Your task to perform on an android device: Go to Wikipedia Image 0: 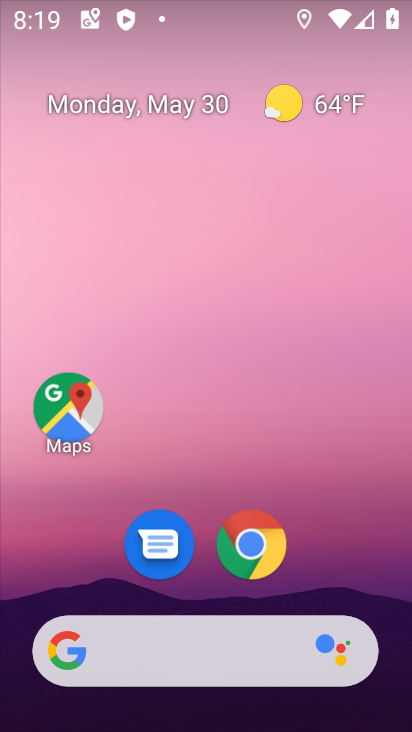
Step 0: click (277, 558)
Your task to perform on an android device: Go to Wikipedia Image 1: 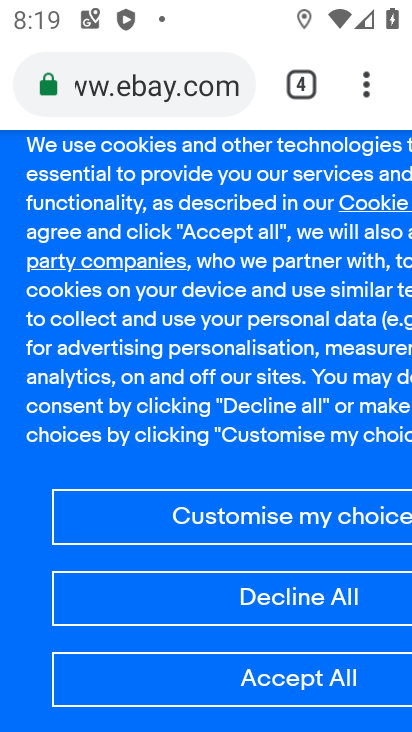
Step 1: click (295, 59)
Your task to perform on an android device: Go to Wikipedia Image 2: 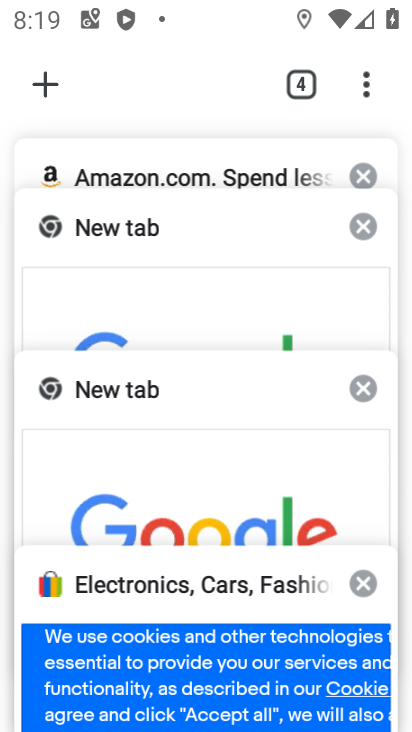
Step 2: click (56, 85)
Your task to perform on an android device: Go to Wikipedia Image 3: 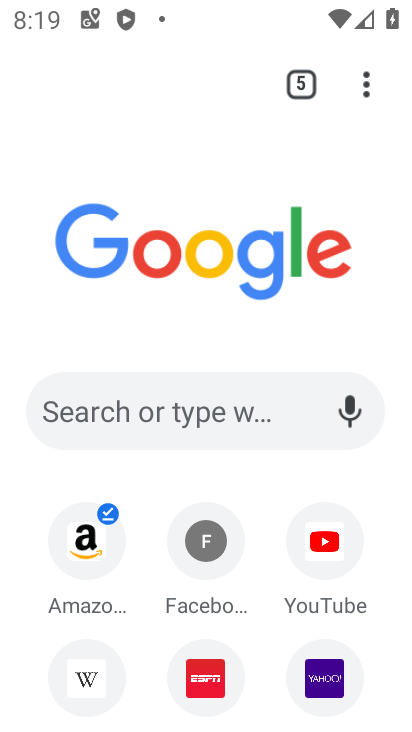
Step 3: click (94, 683)
Your task to perform on an android device: Go to Wikipedia Image 4: 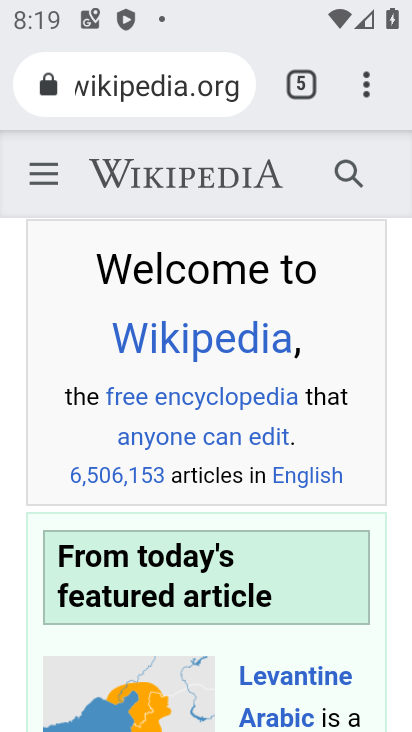
Step 4: task complete